Your task to perform on an android device: turn off location history Image 0: 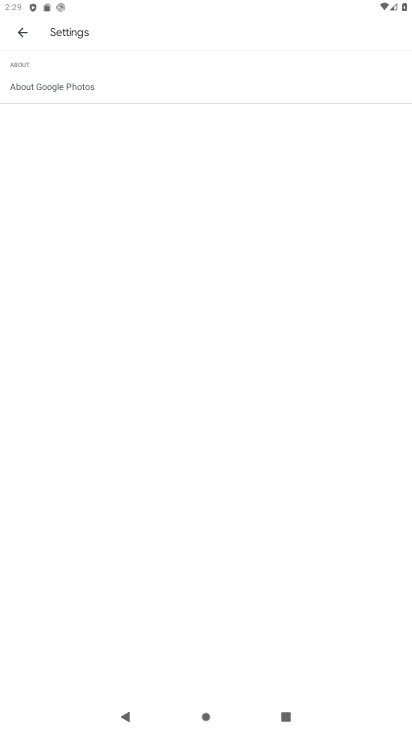
Step 0: press home button
Your task to perform on an android device: turn off location history Image 1: 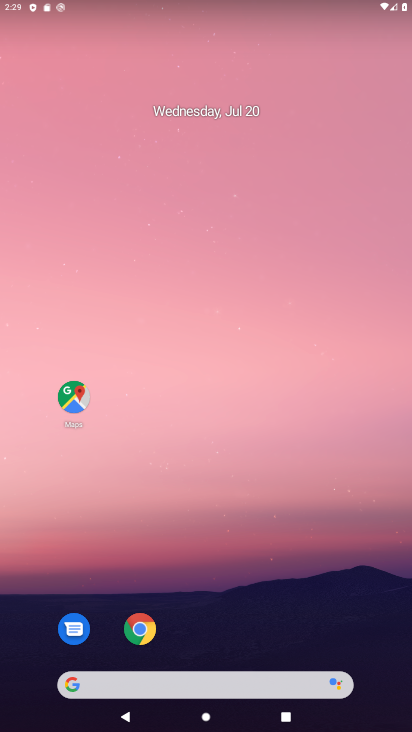
Step 1: drag from (224, 612) to (290, 140)
Your task to perform on an android device: turn off location history Image 2: 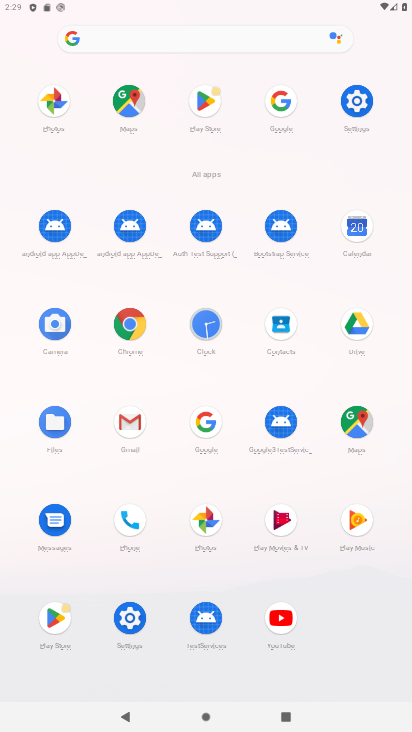
Step 2: click (134, 634)
Your task to perform on an android device: turn off location history Image 3: 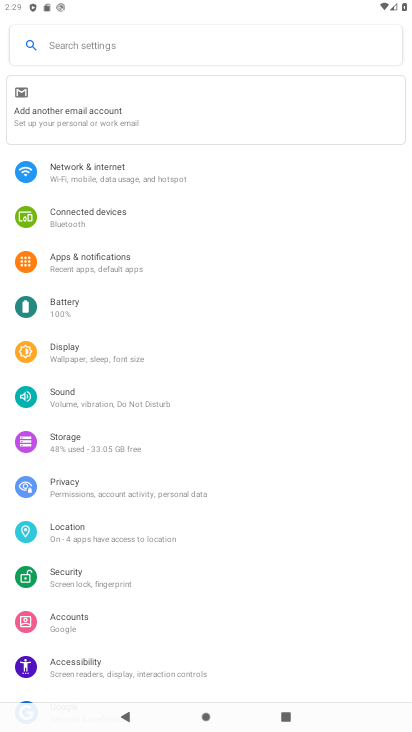
Step 3: click (102, 532)
Your task to perform on an android device: turn off location history Image 4: 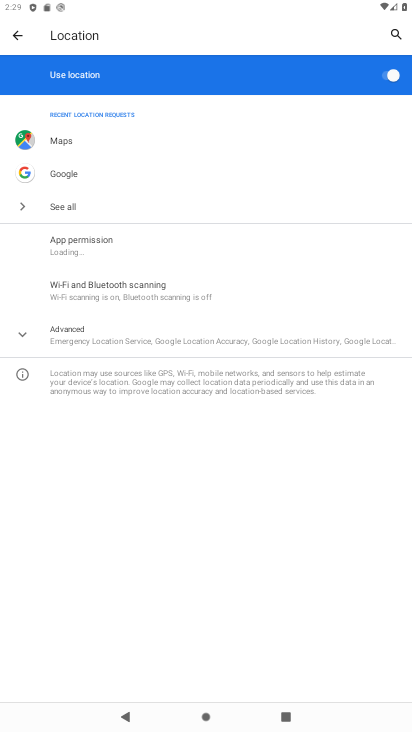
Step 4: click (168, 338)
Your task to perform on an android device: turn off location history Image 5: 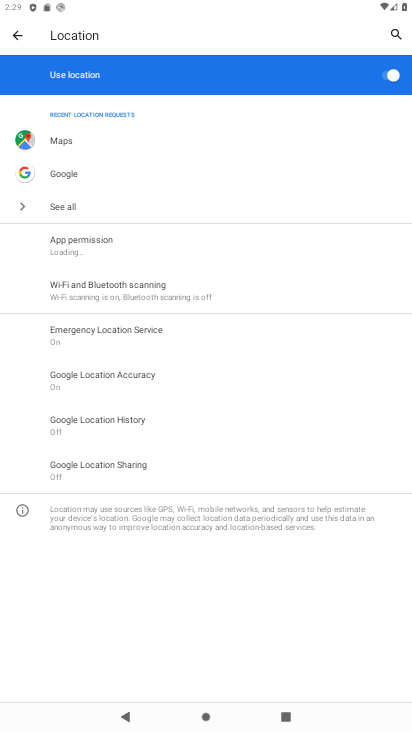
Step 5: click (158, 424)
Your task to perform on an android device: turn off location history Image 6: 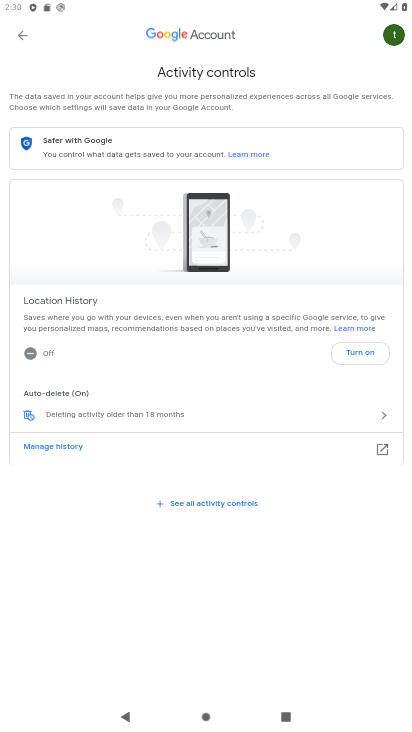
Step 6: task complete